Your task to perform on an android device: Is it going to rain this weekend? Image 0: 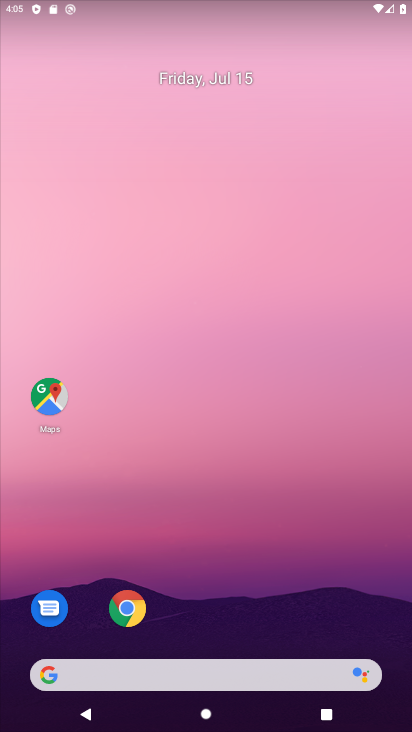
Step 0: drag from (198, 622) to (249, 40)
Your task to perform on an android device: Is it going to rain this weekend? Image 1: 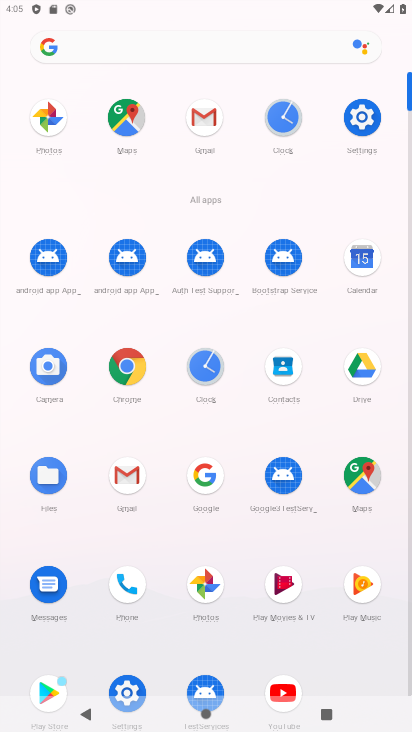
Step 1: click (171, 38)
Your task to perform on an android device: Is it going to rain this weekend? Image 2: 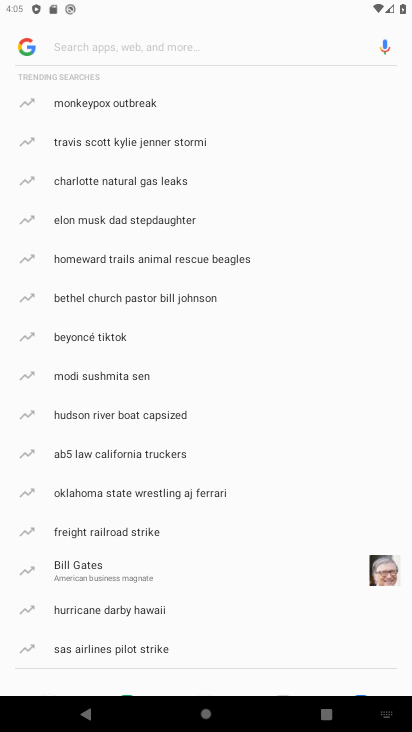
Step 2: type "weather"
Your task to perform on an android device: Is it going to rain this weekend? Image 3: 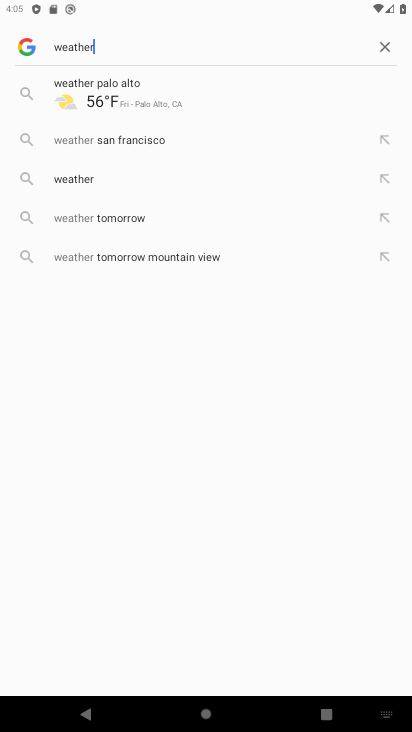
Step 3: click (86, 178)
Your task to perform on an android device: Is it going to rain this weekend? Image 4: 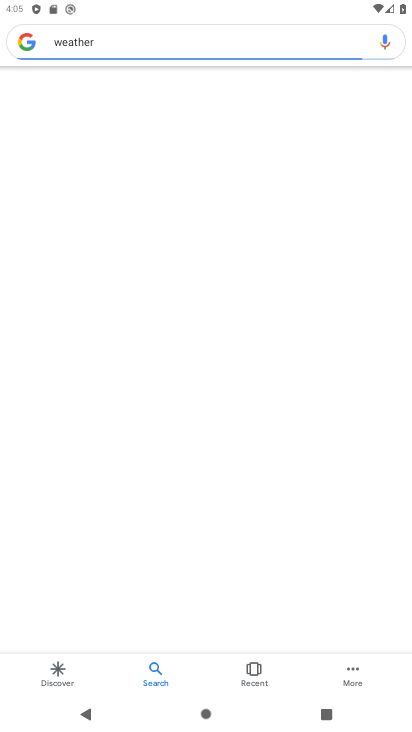
Step 4: click (87, 181)
Your task to perform on an android device: Is it going to rain this weekend? Image 5: 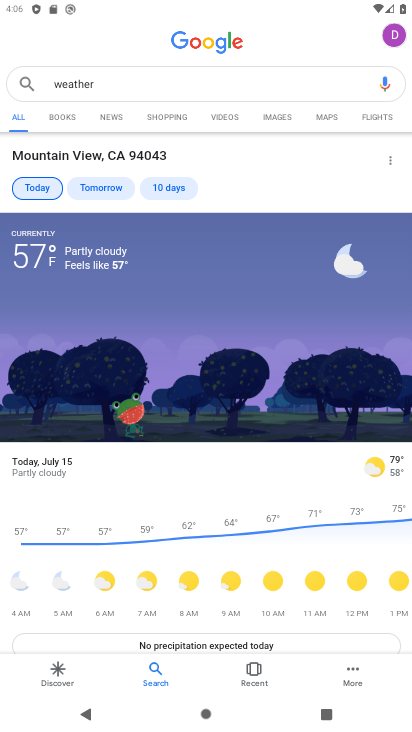
Step 5: task complete